Your task to perform on an android device: add a label to a message in the gmail app Image 0: 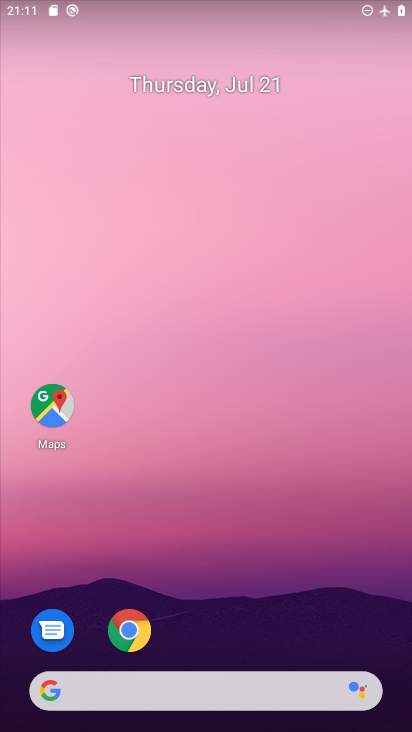
Step 0: drag from (253, 668) to (258, 216)
Your task to perform on an android device: add a label to a message in the gmail app Image 1: 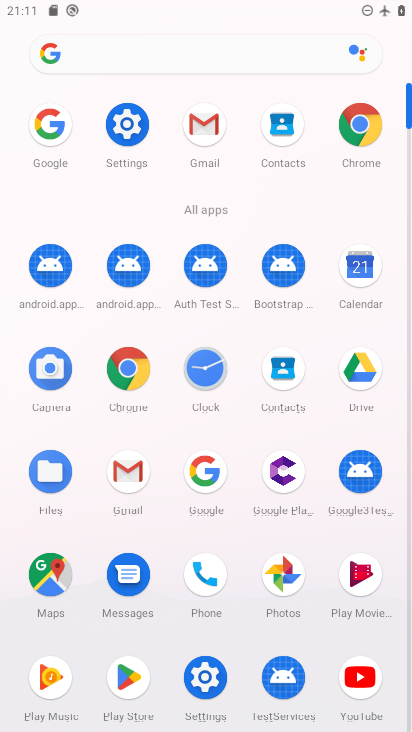
Step 1: click (208, 136)
Your task to perform on an android device: add a label to a message in the gmail app Image 2: 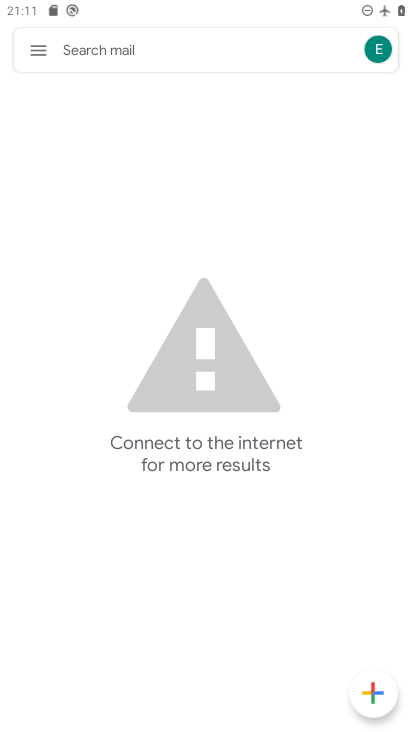
Step 2: task complete